Your task to perform on an android device: Open ESPN.com Image 0: 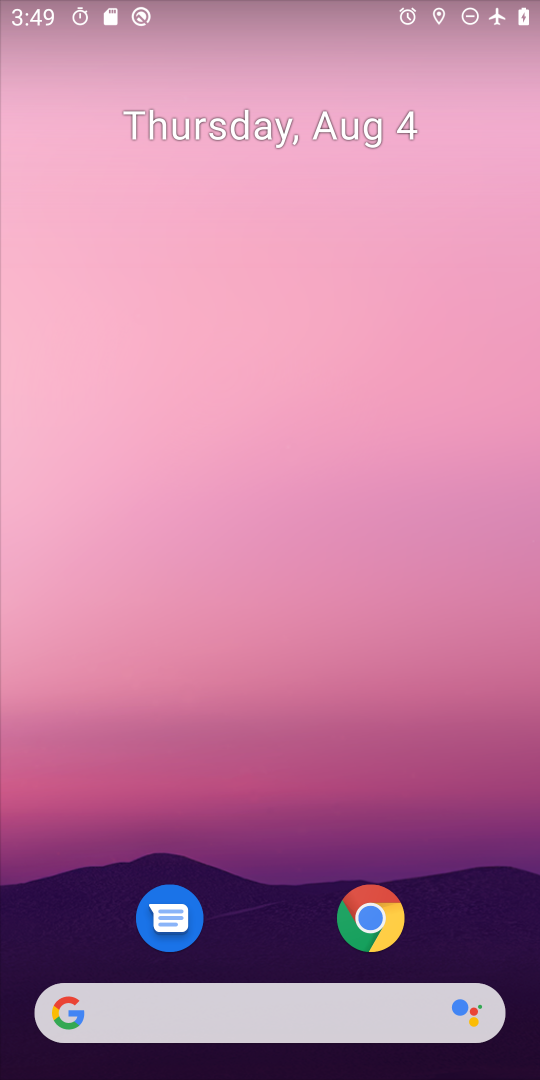
Step 0: click (357, 930)
Your task to perform on an android device: Open ESPN.com Image 1: 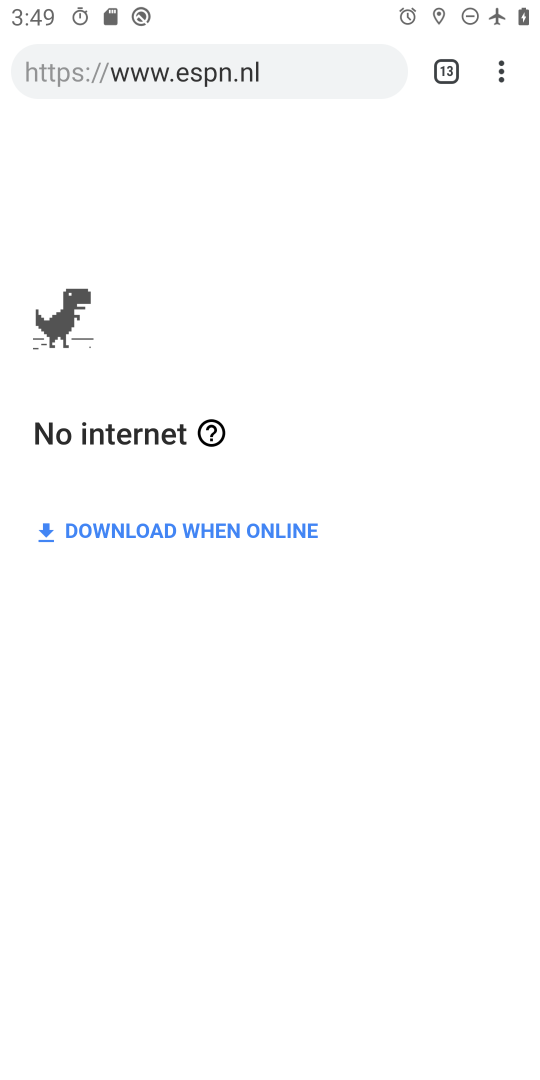
Step 1: click (435, 64)
Your task to perform on an android device: Open ESPN.com Image 2: 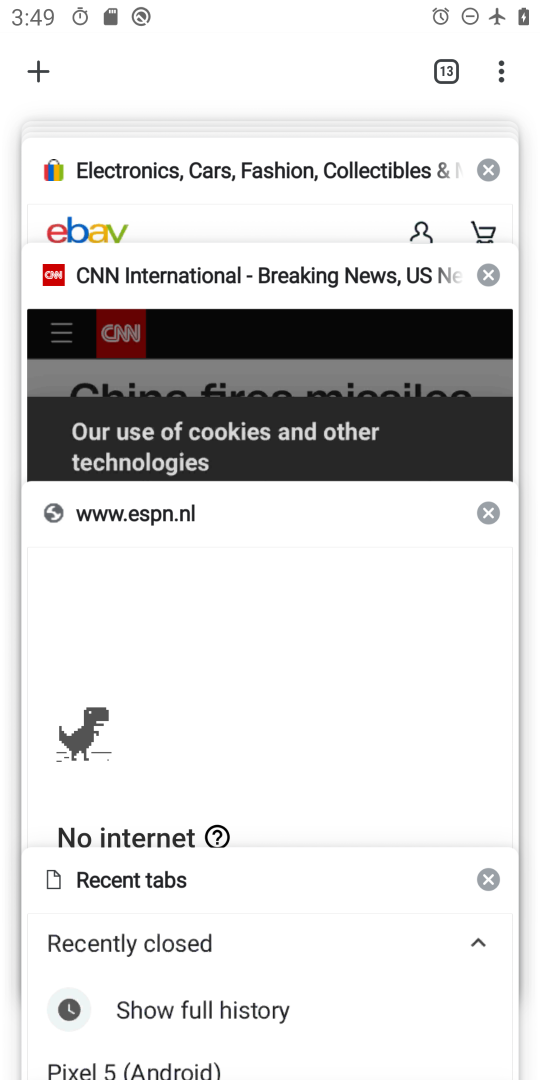
Step 2: click (45, 64)
Your task to perform on an android device: Open ESPN.com Image 3: 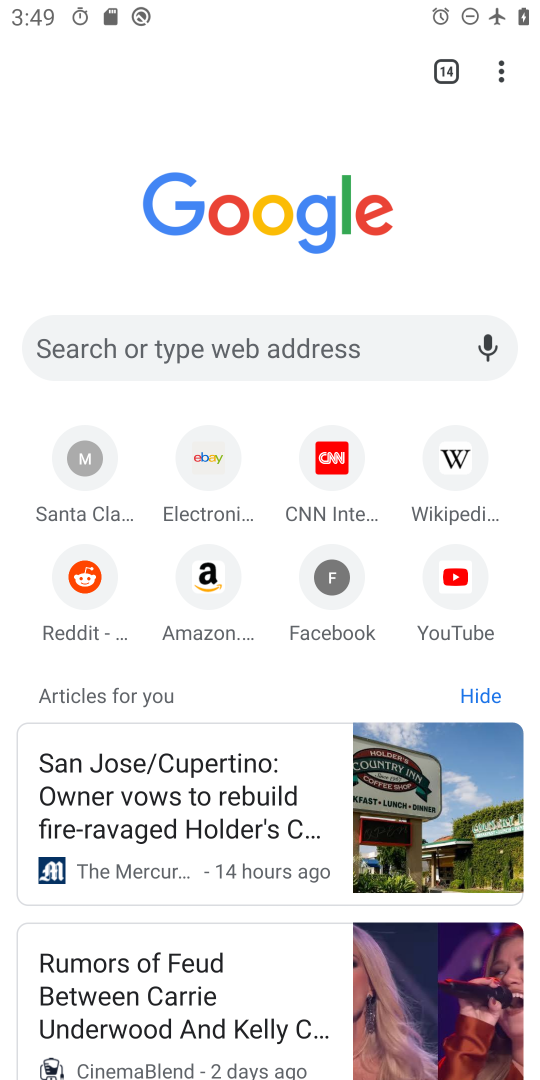
Step 3: click (229, 360)
Your task to perform on an android device: Open ESPN.com Image 4: 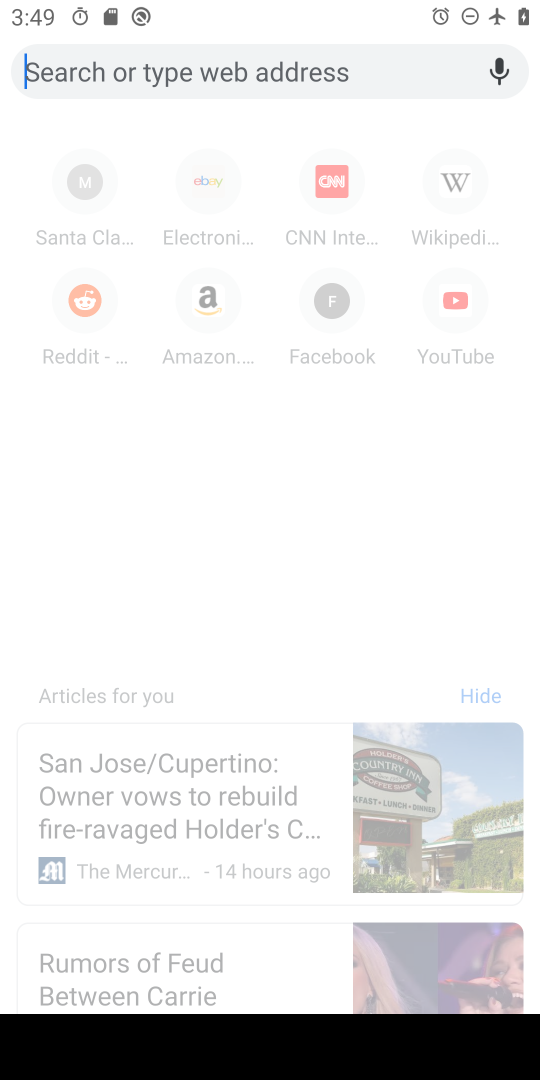
Step 4: type "ESPN.com"
Your task to perform on an android device: Open ESPN.com Image 5: 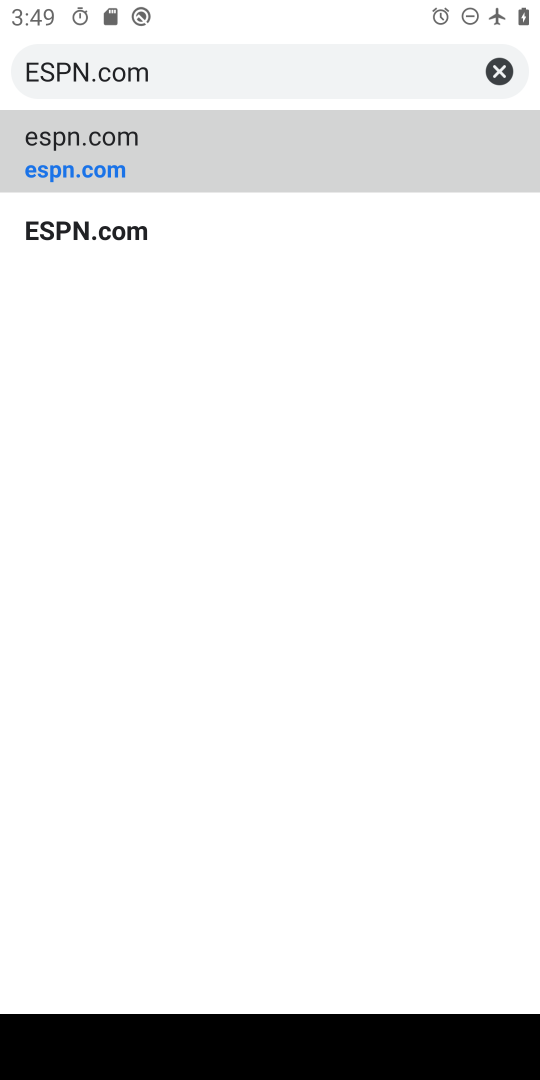
Step 5: click (201, 164)
Your task to perform on an android device: Open ESPN.com Image 6: 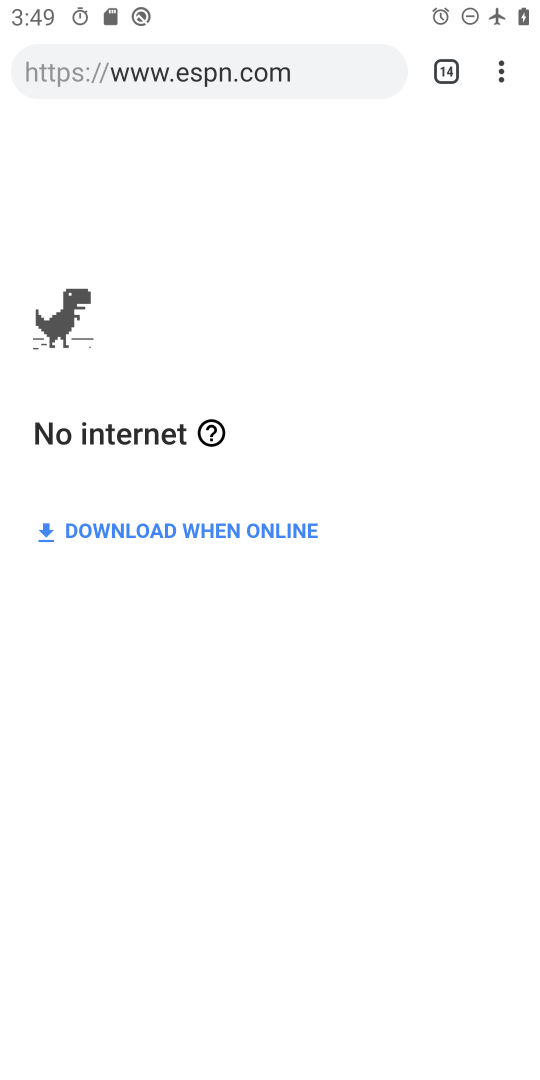
Step 6: task complete